Your task to perform on an android device: Toggle the flashlight Image 0: 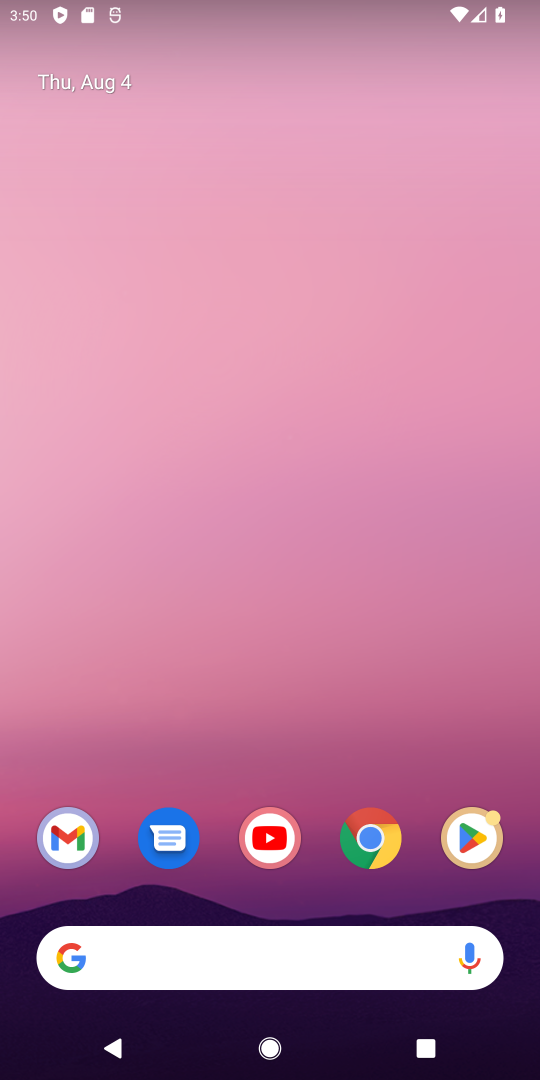
Step 0: drag from (318, 19) to (333, 564)
Your task to perform on an android device: Toggle the flashlight Image 1: 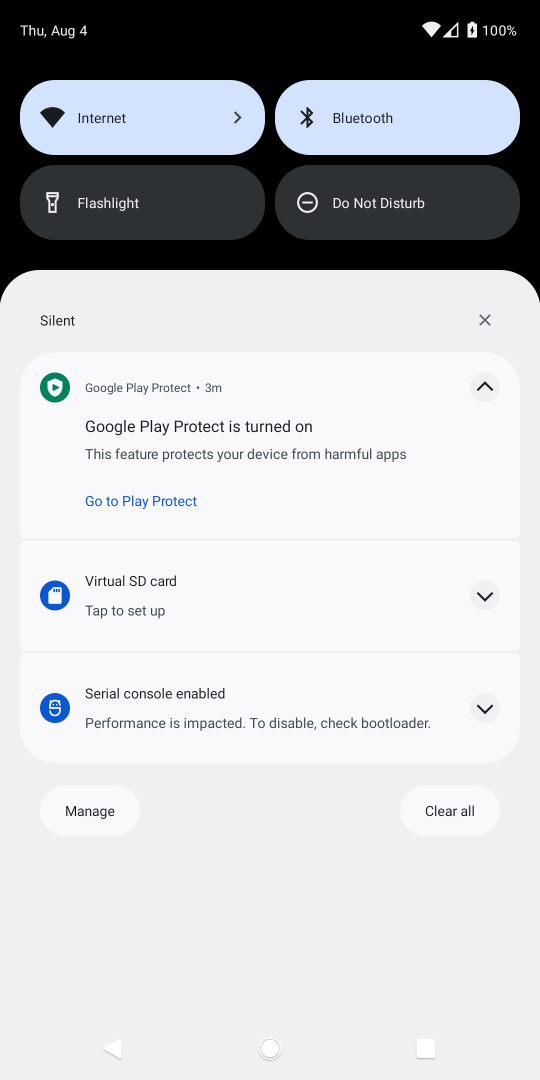
Step 1: drag from (274, 152) to (293, 709)
Your task to perform on an android device: Toggle the flashlight Image 2: 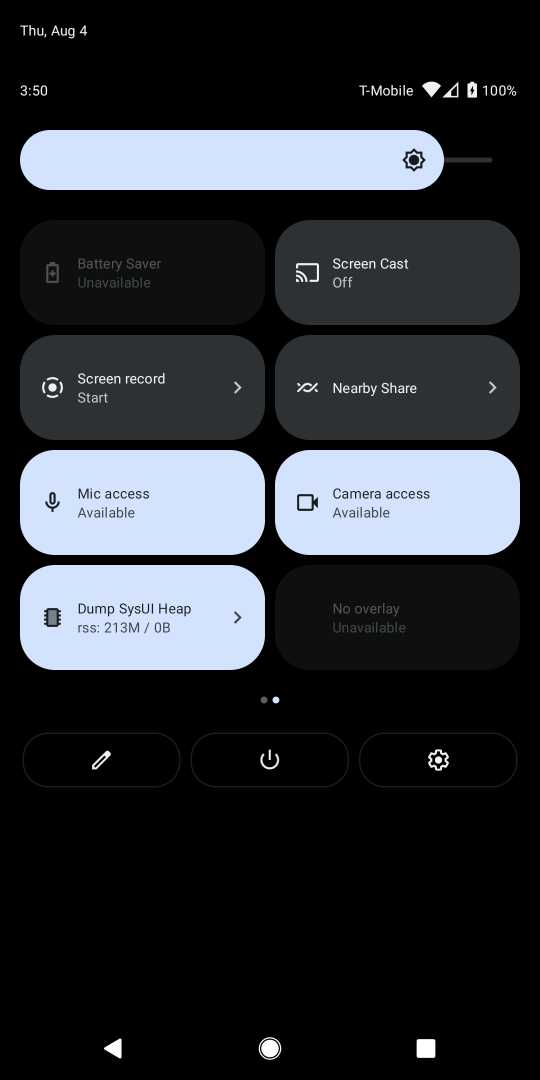
Step 2: drag from (41, 689) to (529, 720)
Your task to perform on an android device: Toggle the flashlight Image 3: 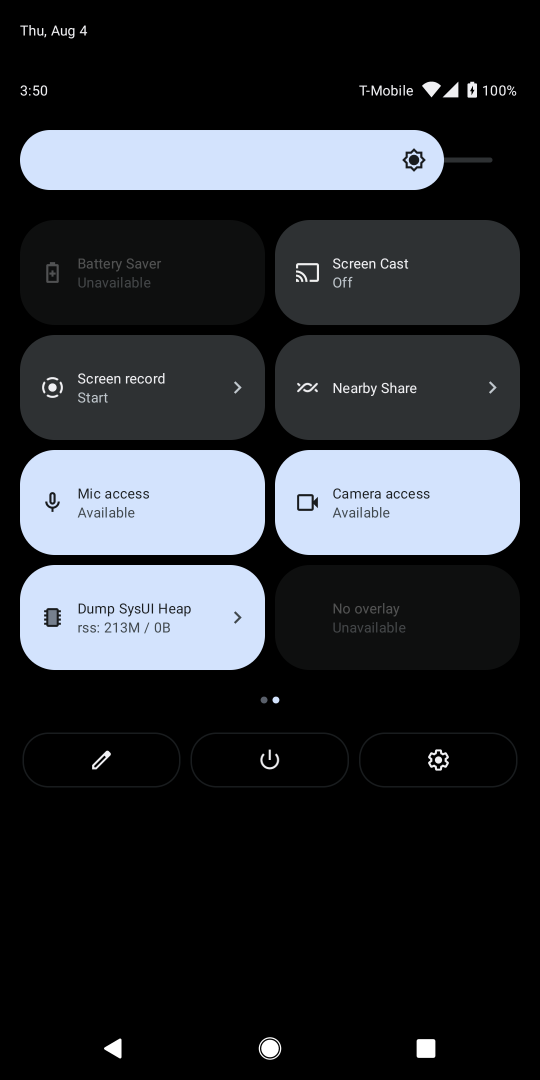
Step 3: drag from (16, 688) to (535, 635)
Your task to perform on an android device: Toggle the flashlight Image 4: 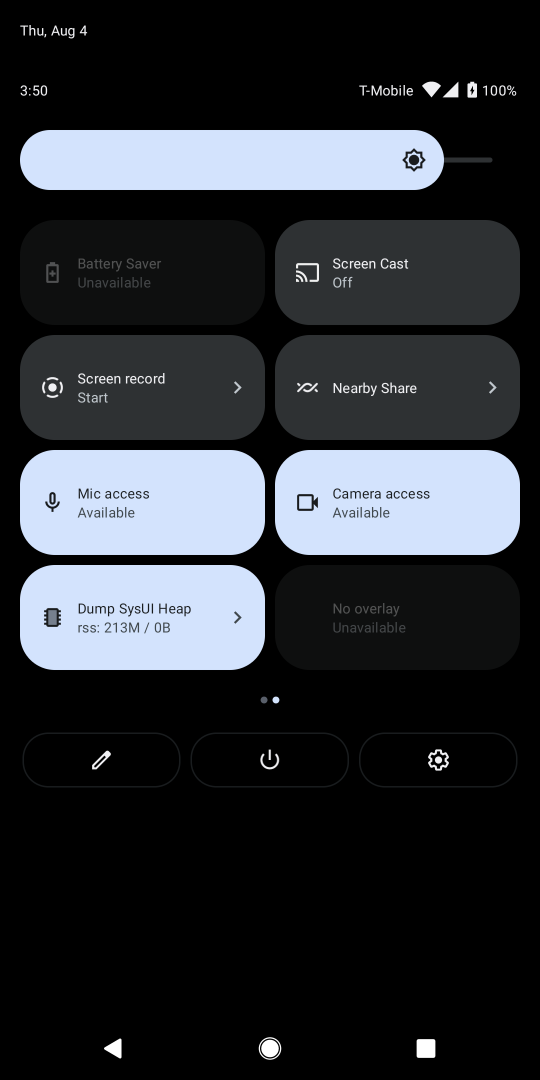
Step 4: drag from (5, 320) to (495, 361)
Your task to perform on an android device: Toggle the flashlight Image 5: 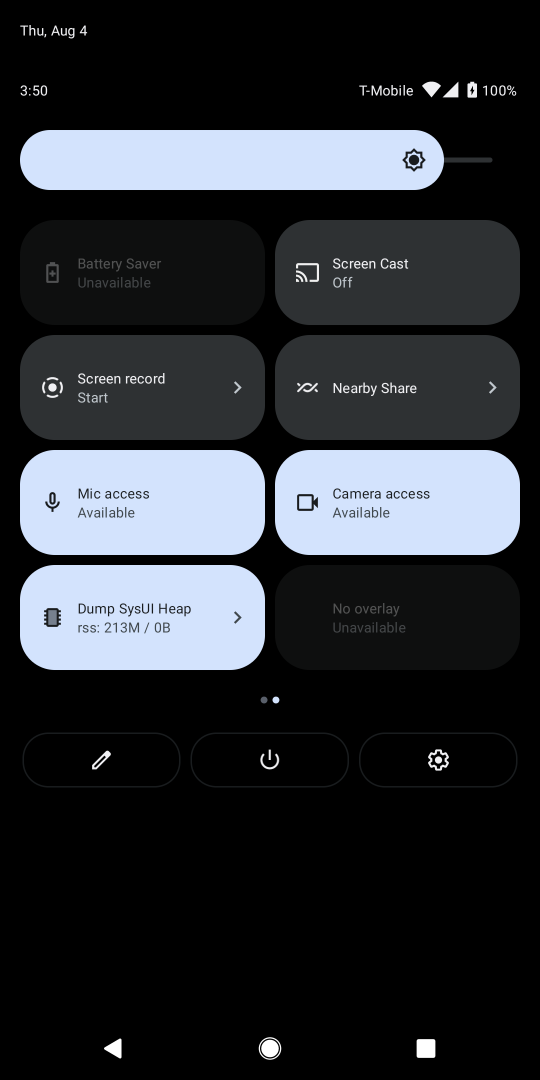
Step 5: drag from (16, 428) to (534, 431)
Your task to perform on an android device: Toggle the flashlight Image 6: 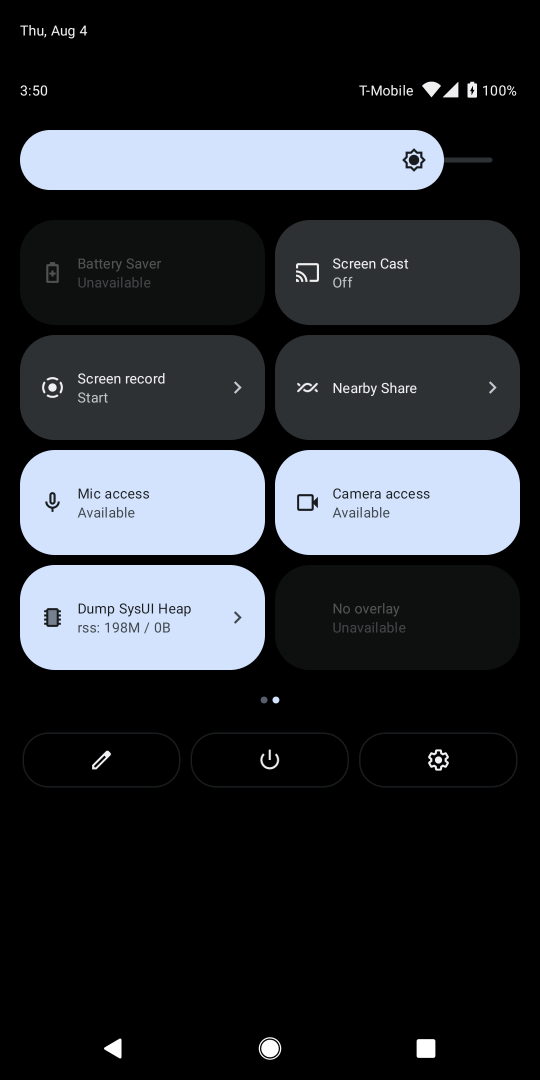
Step 6: drag from (122, 307) to (539, 353)
Your task to perform on an android device: Toggle the flashlight Image 7: 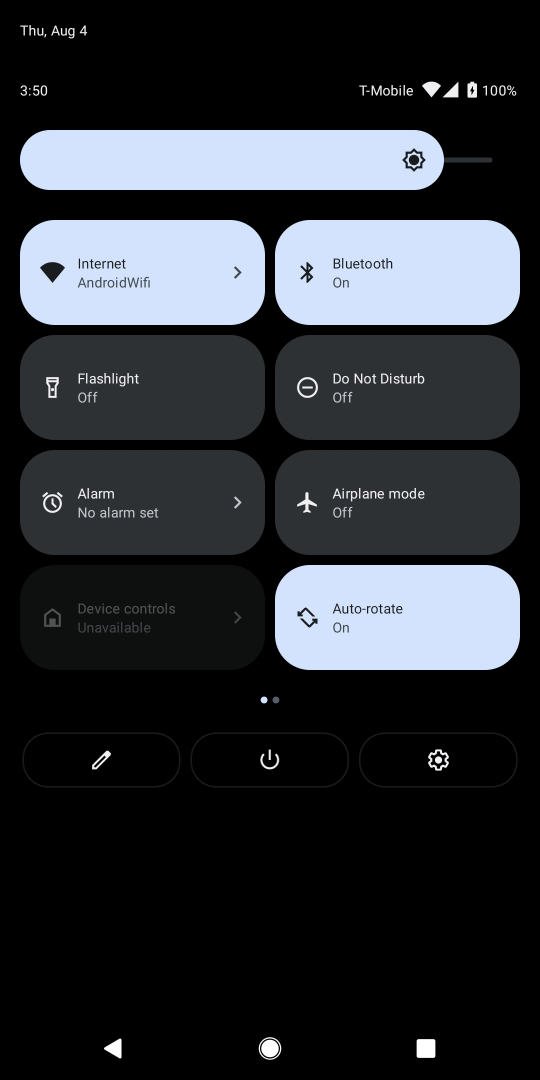
Step 7: click (141, 397)
Your task to perform on an android device: Toggle the flashlight Image 8: 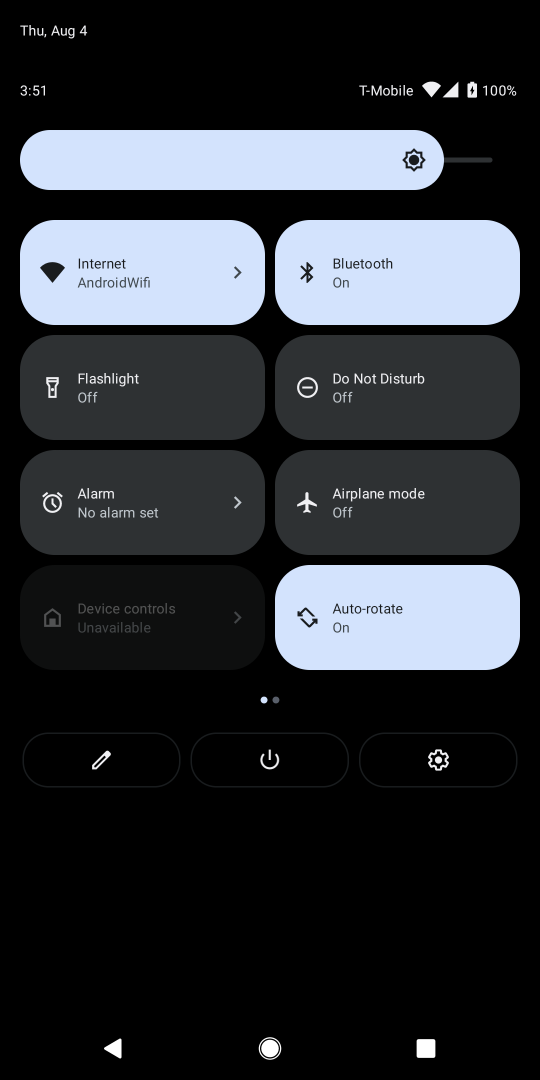
Step 8: task complete